Your task to perform on an android device: Go to CNN.com Image 0: 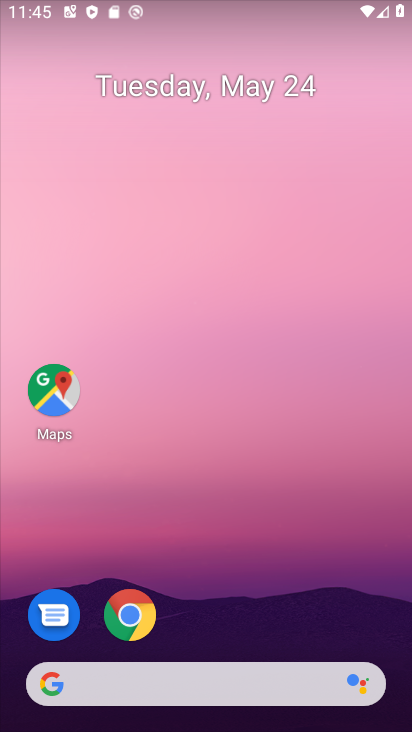
Step 0: click (132, 617)
Your task to perform on an android device: Go to CNN.com Image 1: 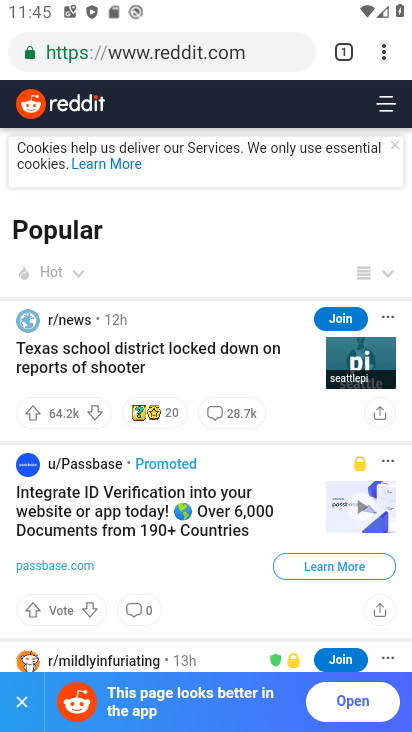
Step 1: click (249, 48)
Your task to perform on an android device: Go to CNN.com Image 2: 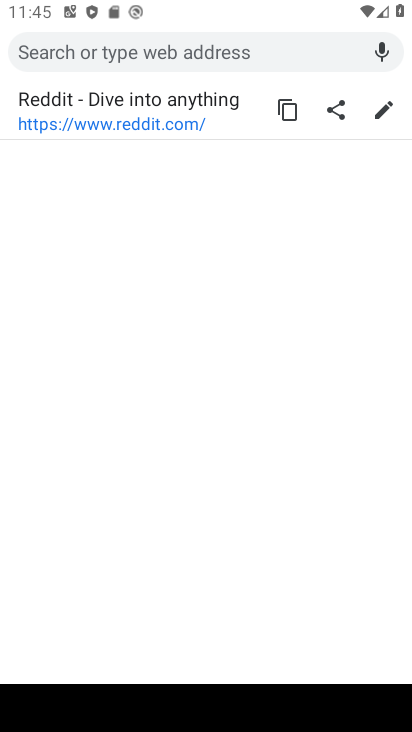
Step 2: type "CNN.com"
Your task to perform on an android device: Go to CNN.com Image 3: 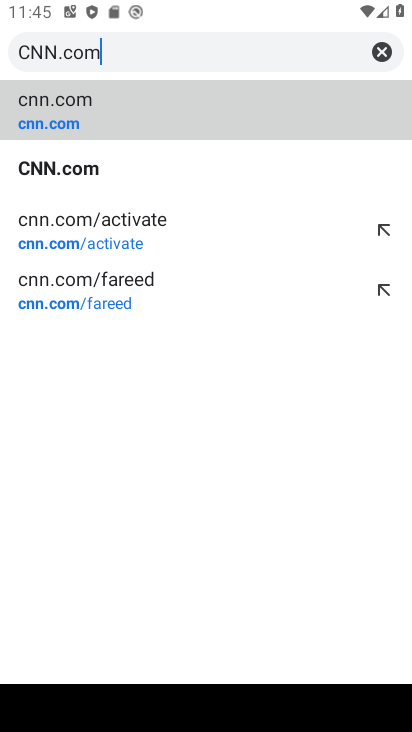
Step 3: click (65, 170)
Your task to perform on an android device: Go to CNN.com Image 4: 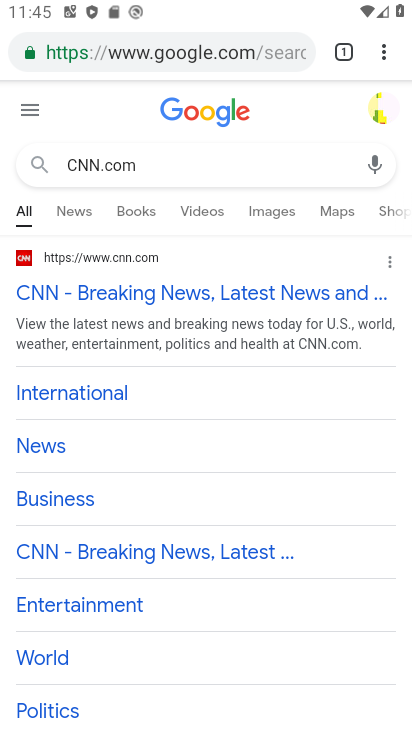
Step 4: click (64, 296)
Your task to perform on an android device: Go to CNN.com Image 5: 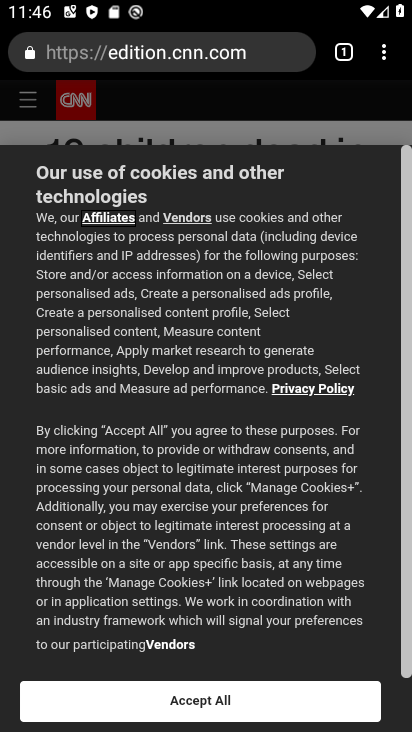
Step 5: task complete